Your task to perform on an android device: stop showing notifications on the lock screen Image 0: 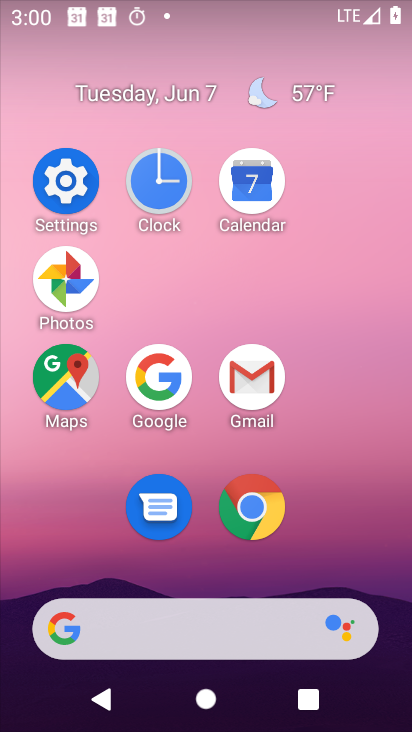
Step 0: click (96, 201)
Your task to perform on an android device: stop showing notifications on the lock screen Image 1: 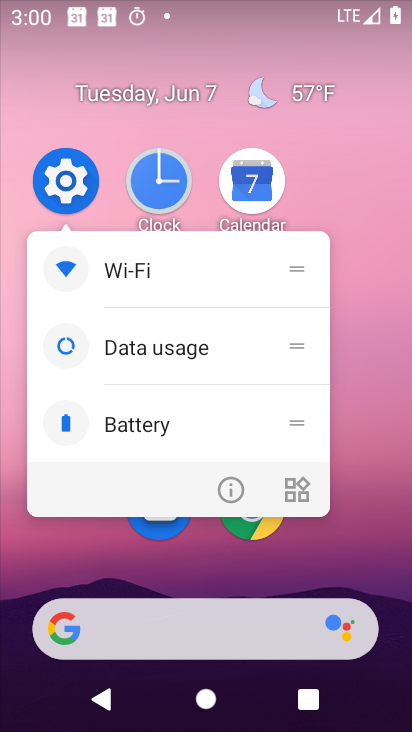
Step 1: click (65, 169)
Your task to perform on an android device: stop showing notifications on the lock screen Image 2: 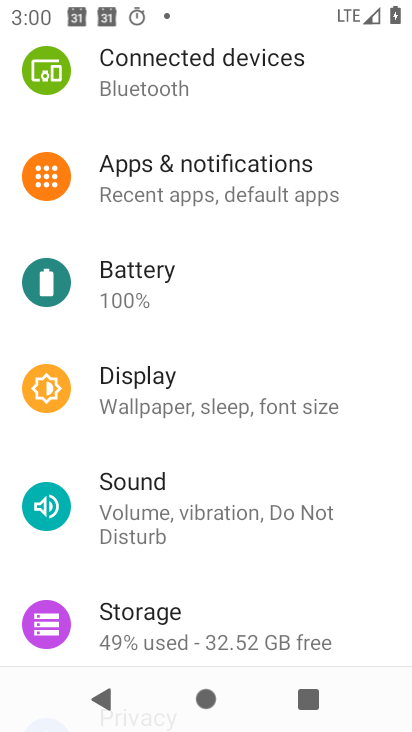
Step 2: click (190, 213)
Your task to perform on an android device: stop showing notifications on the lock screen Image 3: 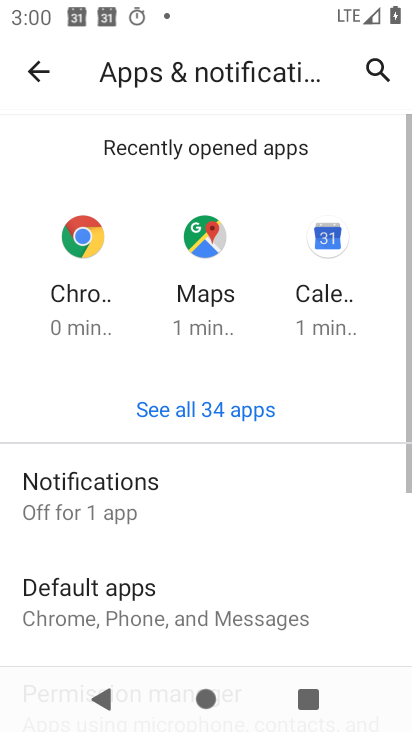
Step 3: click (196, 474)
Your task to perform on an android device: stop showing notifications on the lock screen Image 4: 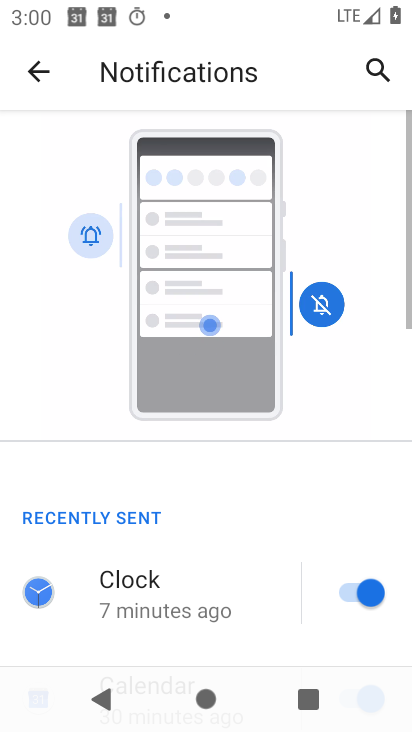
Step 4: drag from (255, 588) to (268, 218)
Your task to perform on an android device: stop showing notifications on the lock screen Image 5: 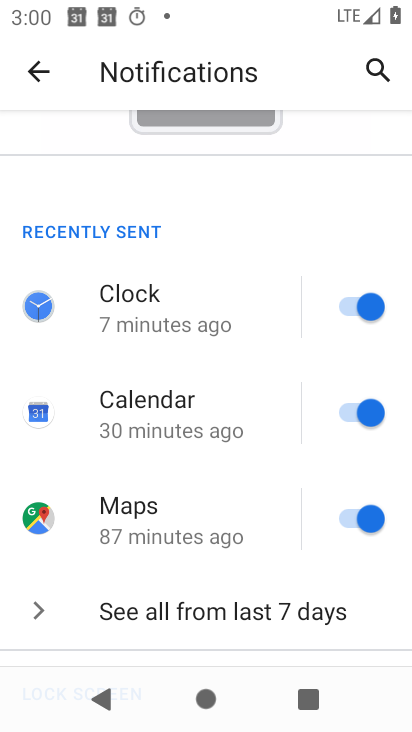
Step 5: drag from (236, 531) to (202, 202)
Your task to perform on an android device: stop showing notifications on the lock screen Image 6: 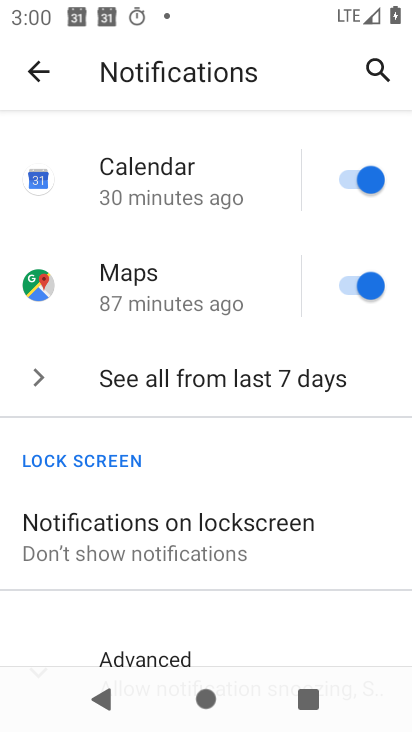
Step 6: click (195, 560)
Your task to perform on an android device: stop showing notifications on the lock screen Image 7: 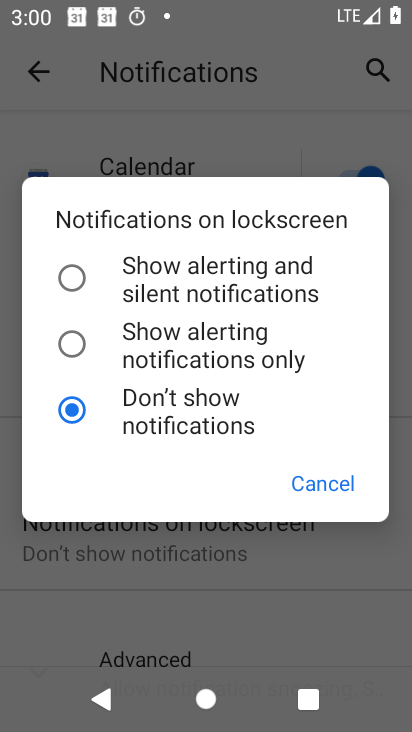
Step 7: task complete